Your task to perform on an android device: Open CNN.com Image 0: 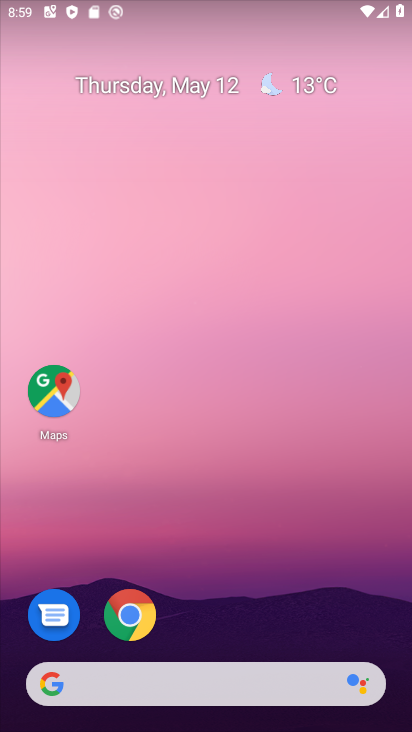
Step 0: click (142, 604)
Your task to perform on an android device: Open CNN.com Image 1: 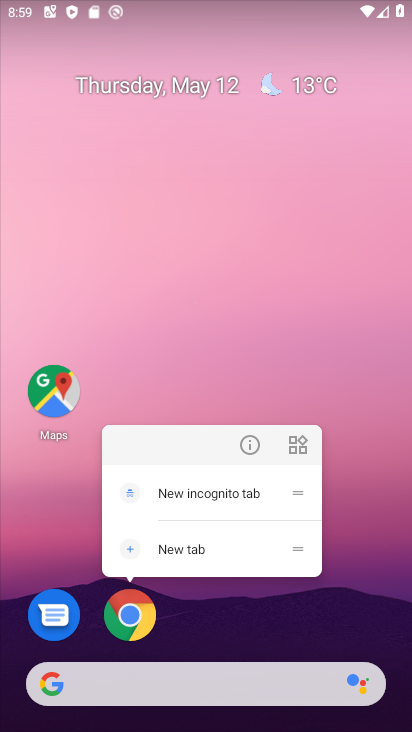
Step 1: click (139, 623)
Your task to perform on an android device: Open CNN.com Image 2: 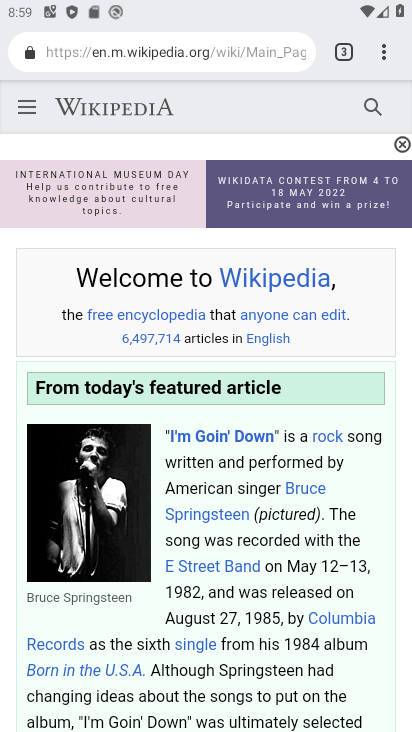
Step 2: click (332, 43)
Your task to perform on an android device: Open CNN.com Image 3: 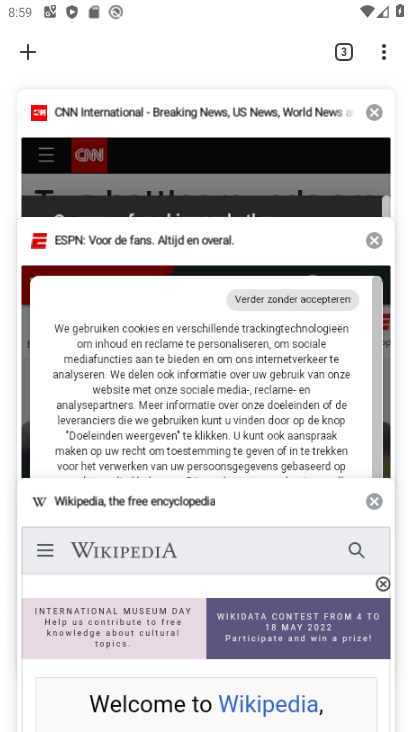
Step 3: click (44, 131)
Your task to perform on an android device: Open CNN.com Image 4: 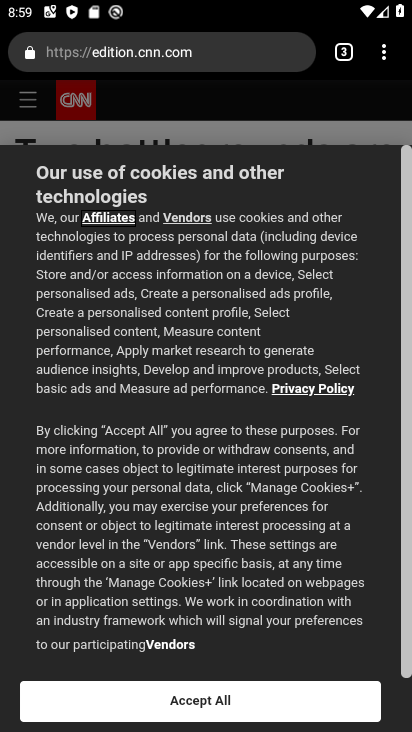
Step 4: drag from (209, 533) to (181, 305)
Your task to perform on an android device: Open CNN.com Image 5: 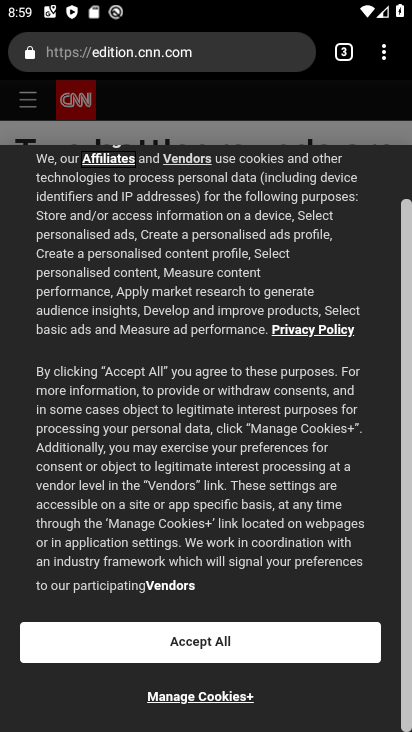
Step 5: click (233, 633)
Your task to perform on an android device: Open CNN.com Image 6: 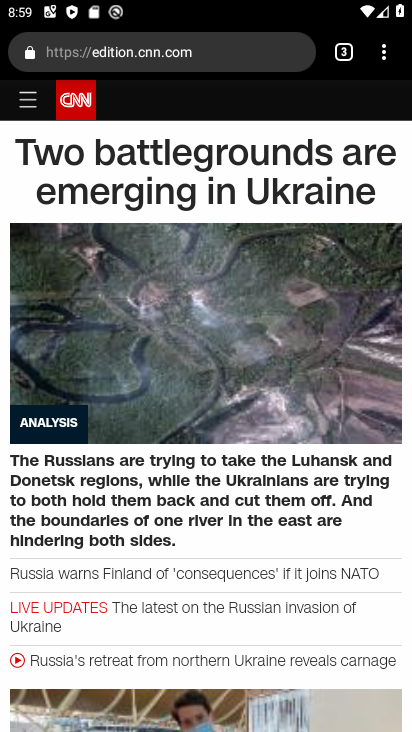
Step 6: task complete